Your task to perform on an android device: turn on airplane mode Image 0: 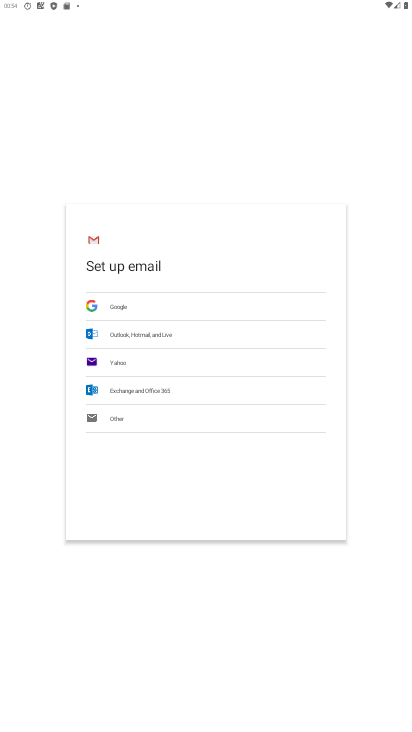
Step 0: press home button
Your task to perform on an android device: turn on airplane mode Image 1: 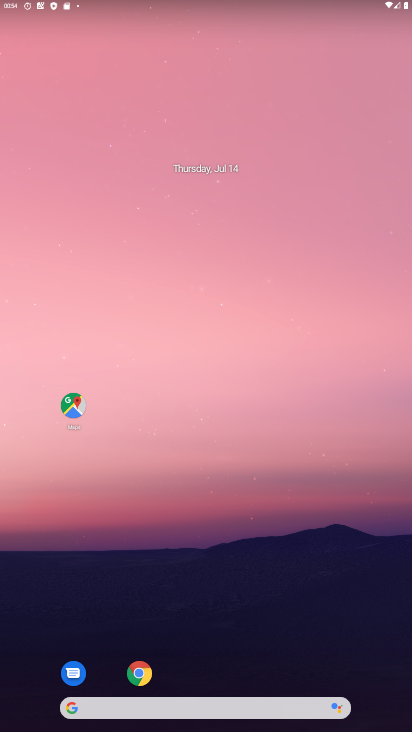
Step 1: drag from (231, 643) to (234, 139)
Your task to perform on an android device: turn on airplane mode Image 2: 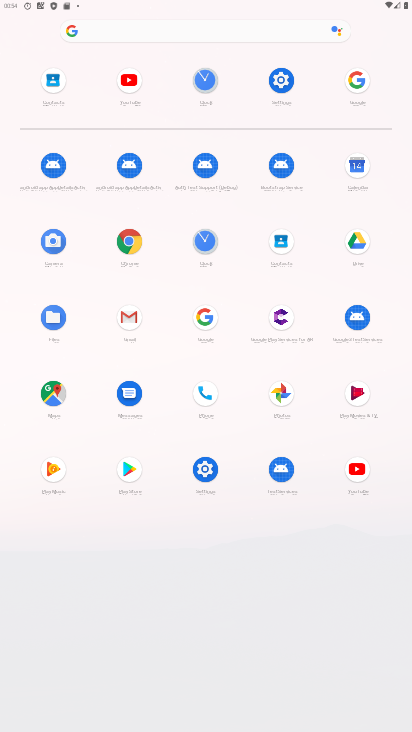
Step 2: click (266, 85)
Your task to perform on an android device: turn on airplane mode Image 3: 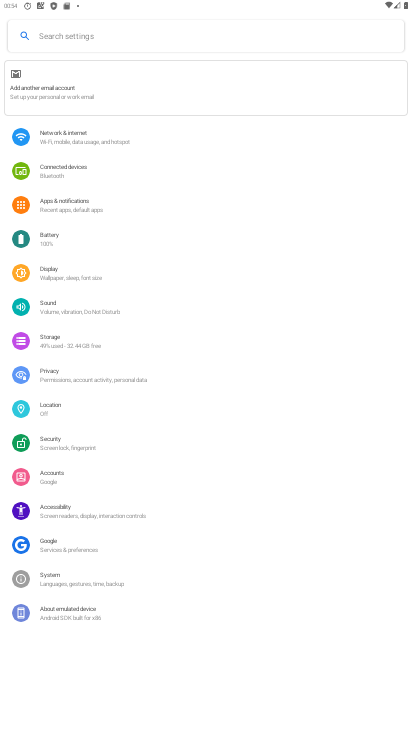
Step 3: click (64, 137)
Your task to perform on an android device: turn on airplane mode Image 4: 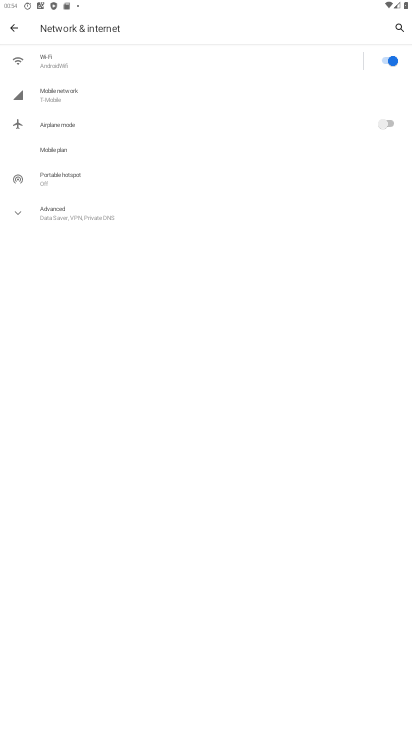
Step 4: click (394, 122)
Your task to perform on an android device: turn on airplane mode Image 5: 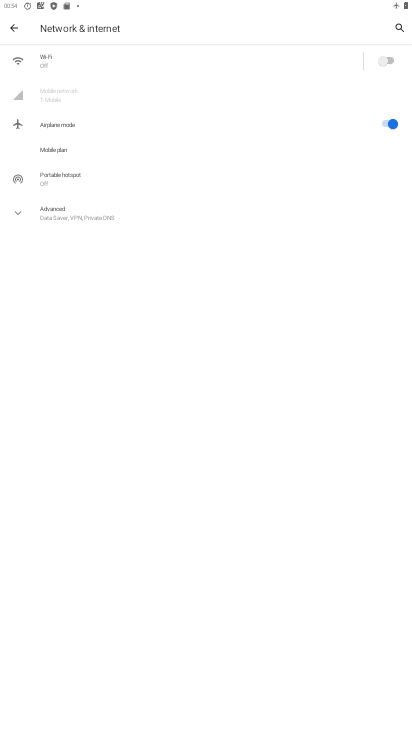
Step 5: task complete